Your task to perform on an android device: see tabs open on other devices in the chrome app Image 0: 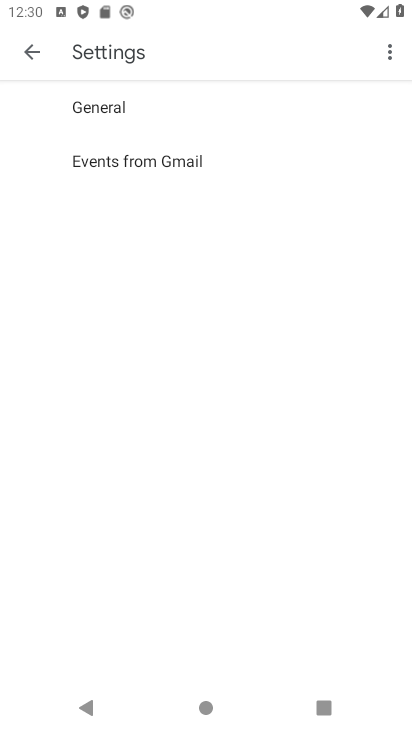
Step 0: press home button
Your task to perform on an android device: see tabs open on other devices in the chrome app Image 1: 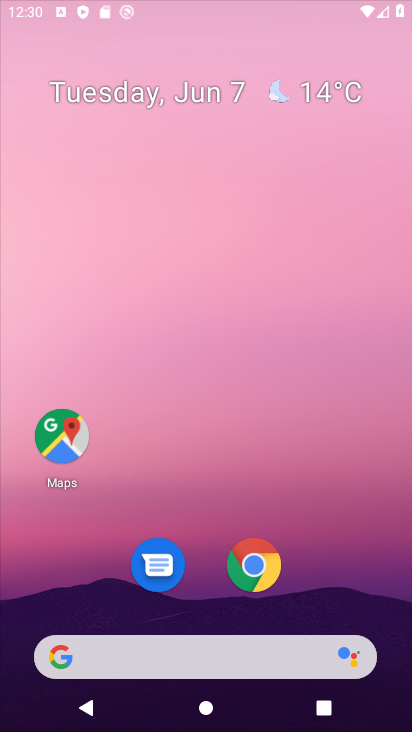
Step 1: drag from (223, 694) to (164, 273)
Your task to perform on an android device: see tabs open on other devices in the chrome app Image 2: 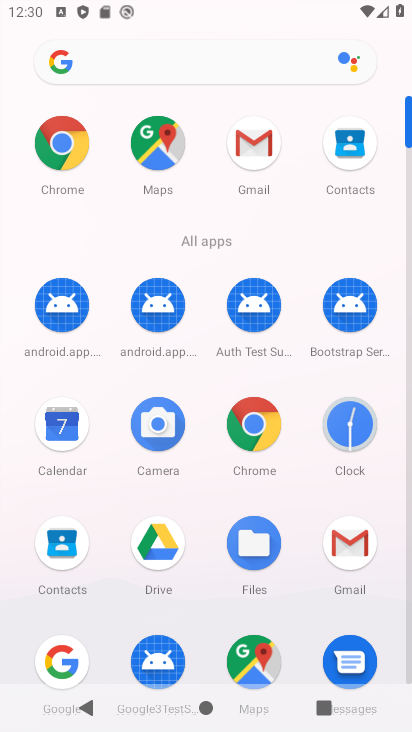
Step 2: click (263, 425)
Your task to perform on an android device: see tabs open on other devices in the chrome app Image 3: 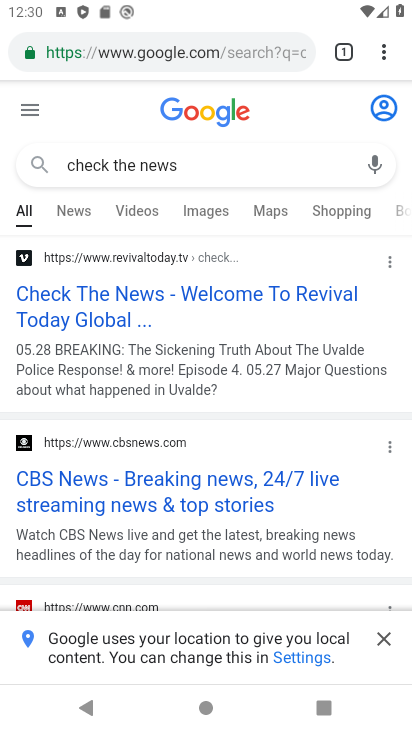
Step 3: click (388, 54)
Your task to perform on an android device: see tabs open on other devices in the chrome app Image 4: 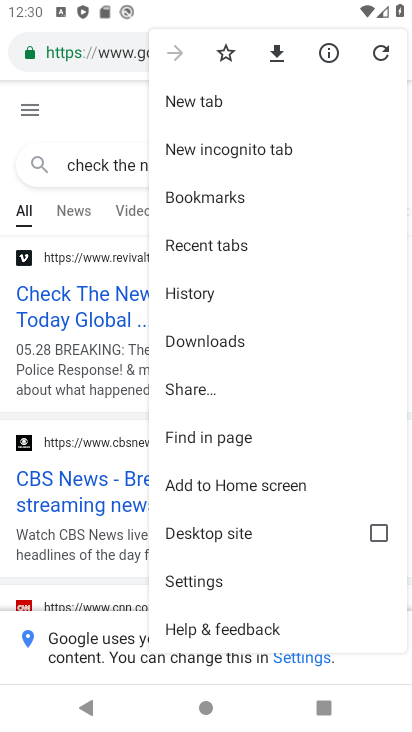
Step 4: click (256, 243)
Your task to perform on an android device: see tabs open on other devices in the chrome app Image 5: 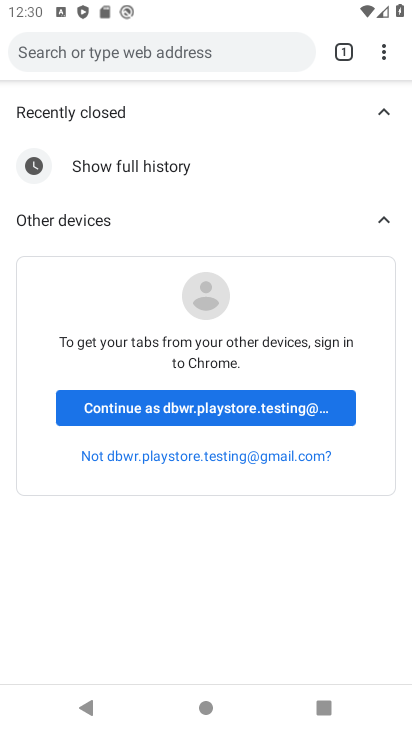
Step 5: task complete